Your task to perform on an android device: Open the phone app and click the voicemail tab. Image 0: 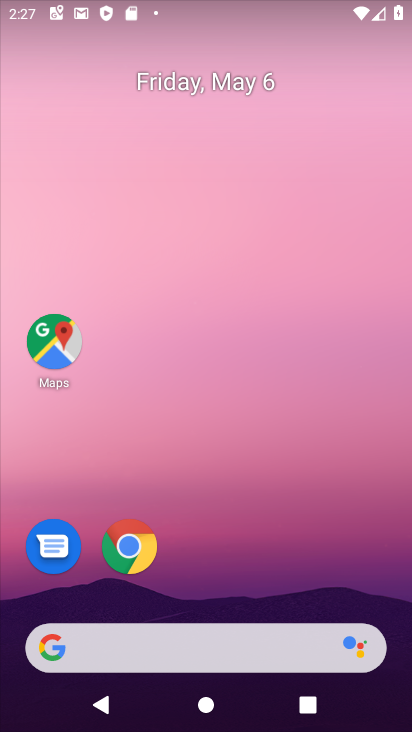
Step 0: drag from (282, 525) to (282, 109)
Your task to perform on an android device: Open the phone app and click the voicemail tab. Image 1: 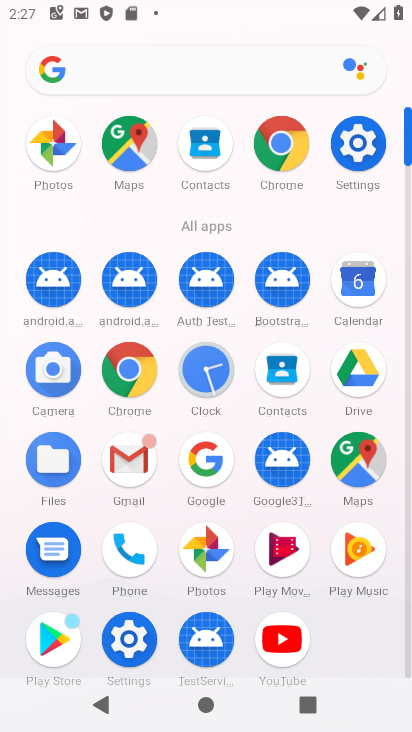
Step 1: click (128, 552)
Your task to perform on an android device: Open the phone app and click the voicemail tab. Image 2: 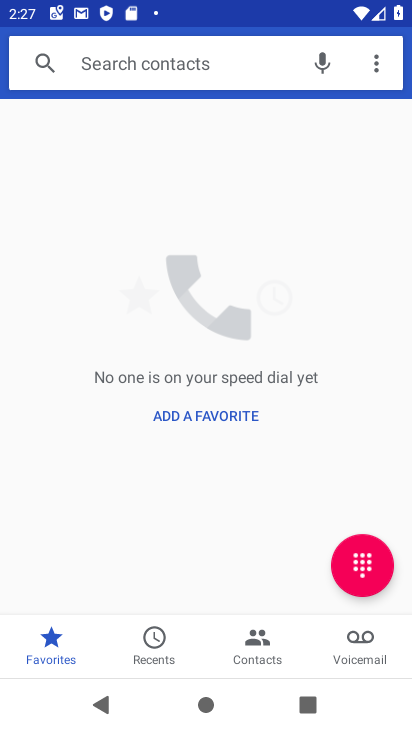
Step 2: click (366, 641)
Your task to perform on an android device: Open the phone app and click the voicemail tab. Image 3: 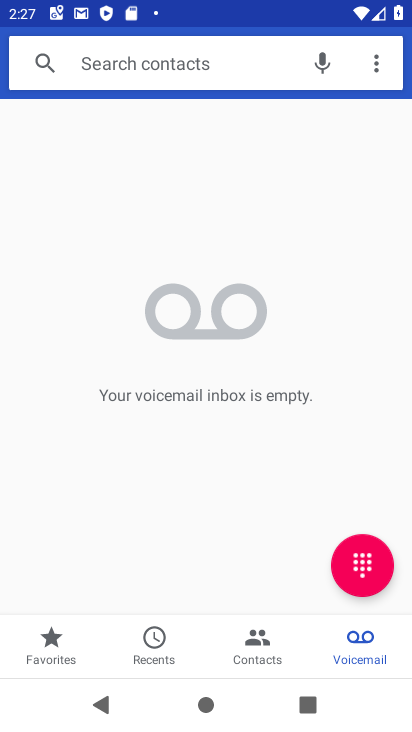
Step 3: task complete